Your task to perform on an android device: Open Google Chrome Image 0: 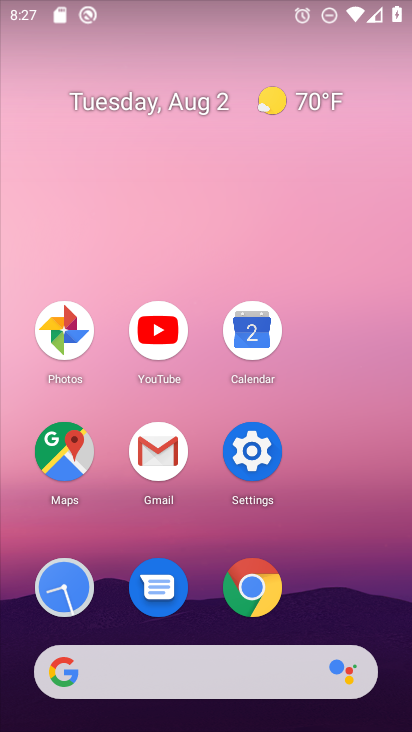
Step 0: click (248, 584)
Your task to perform on an android device: Open Google Chrome Image 1: 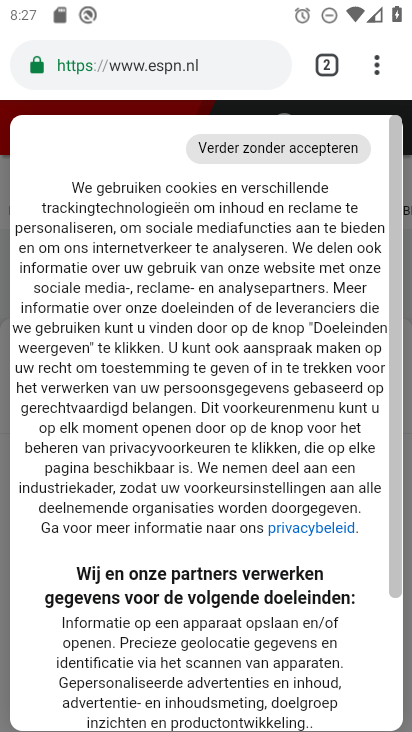
Step 1: click (375, 65)
Your task to perform on an android device: Open Google Chrome Image 2: 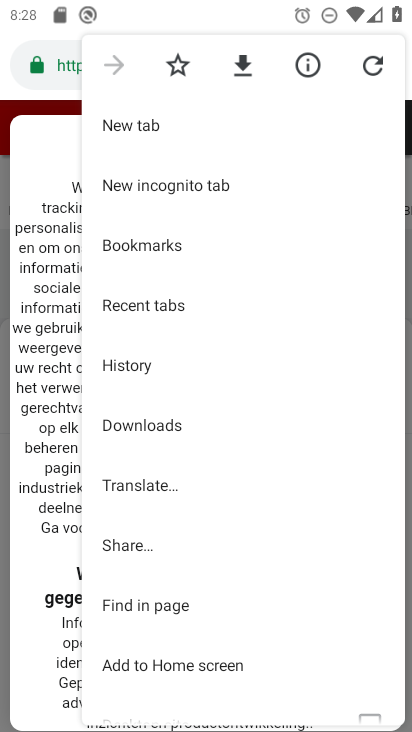
Step 2: click (141, 124)
Your task to perform on an android device: Open Google Chrome Image 3: 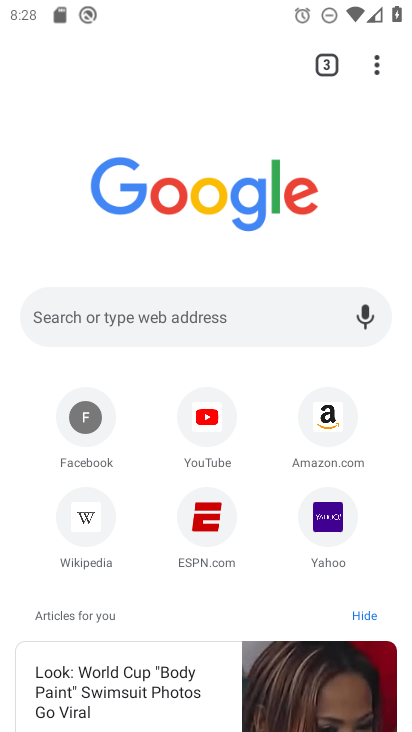
Step 3: task complete